Your task to perform on an android device: turn on bluetooth scan Image 0: 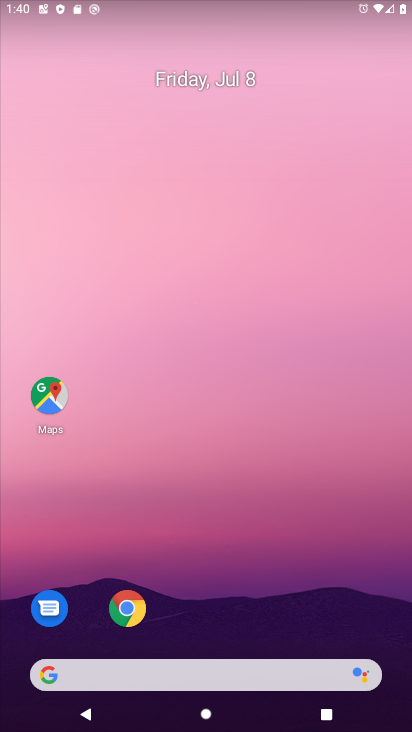
Step 0: drag from (191, 7) to (144, 622)
Your task to perform on an android device: turn on bluetooth scan Image 1: 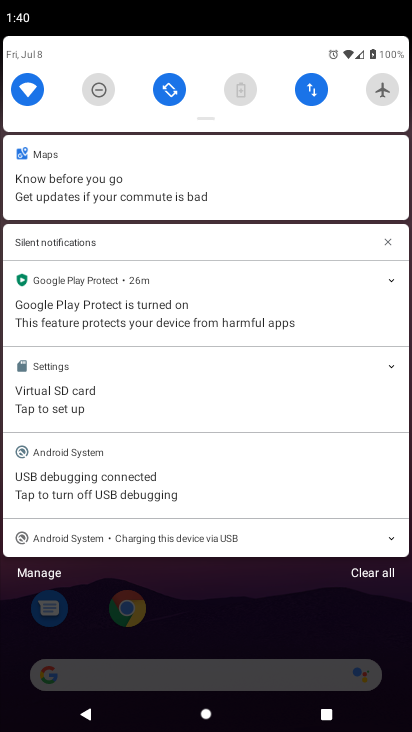
Step 1: drag from (195, 56) to (207, 606)
Your task to perform on an android device: turn on bluetooth scan Image 2: 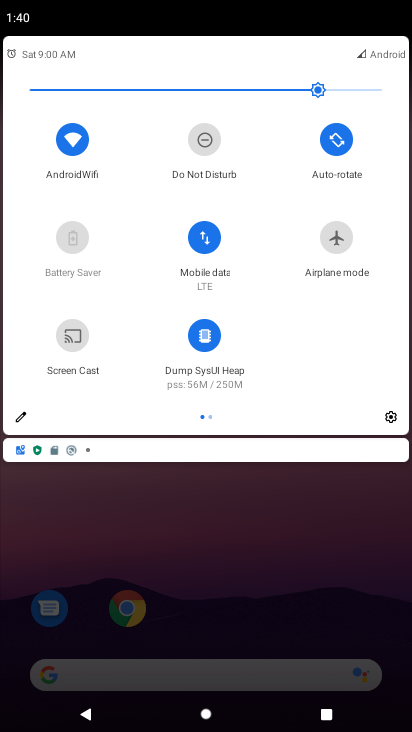
Step 2: click (394, 413)
Your task to perform on an android device: turn on bluetooth scan Image 3: 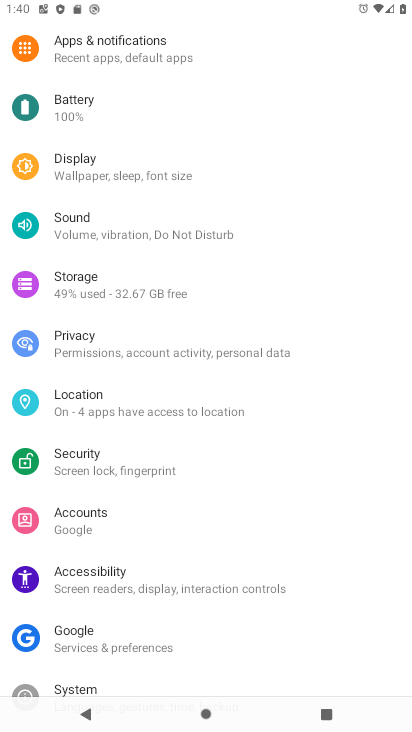
Step 3: click (76, 411)
Your task to perform on an android device: turn on bluetooth scan Image 4: 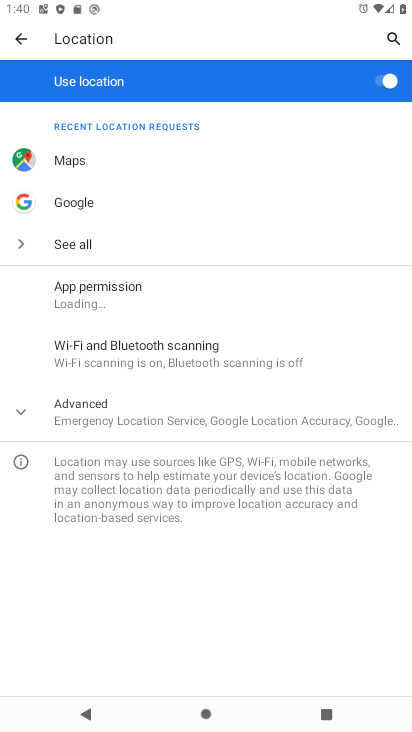
Step 4: click (122, 365)
Your task to perform on an android device: turn on bluetooth scan Image 5: 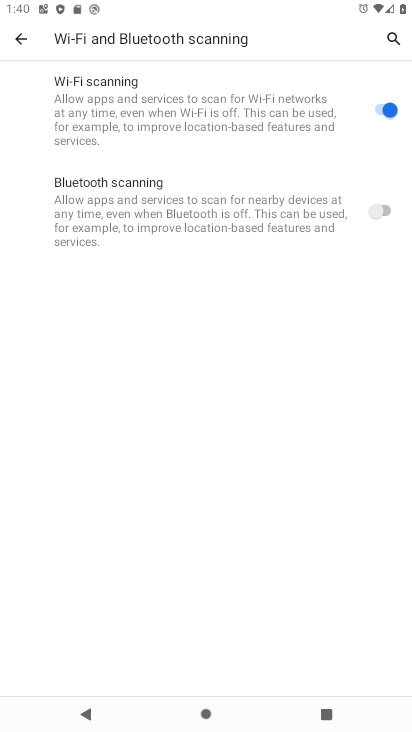
Step 5: click (376, 214)
Your task to perform on an android device: turn on bluetooth scan Image 6: 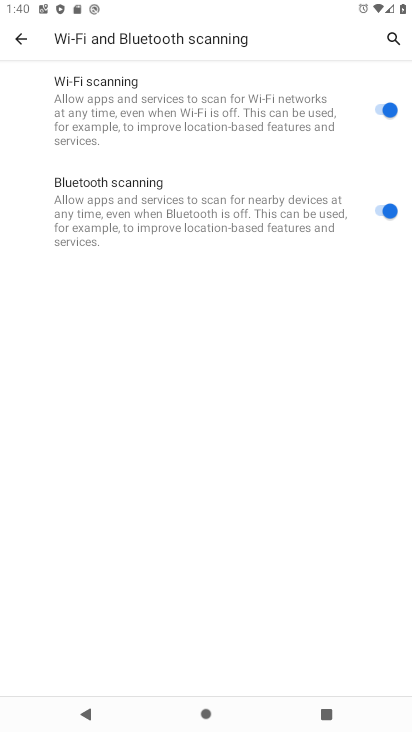
Step 6: task complete